Your task to perform on an android device: Play the last video I watched on Youtube Image 0: 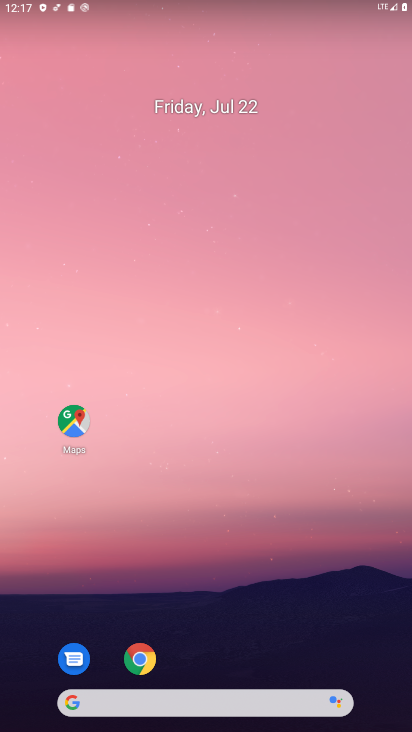
Step 0: drag from (232, 652) to (220, 217)
Your task to perform on an android device: Play the last video I watched on Youtube Image 1: 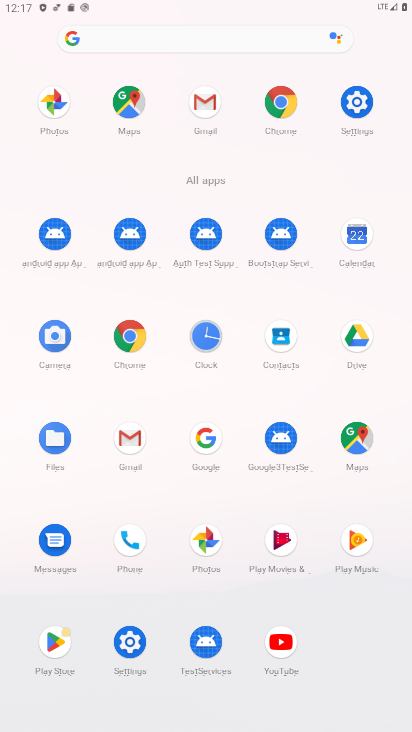
Step 1: click (263, 645)
Your task to perform on an android device: Play the last video I watched on Youtube Image 2: 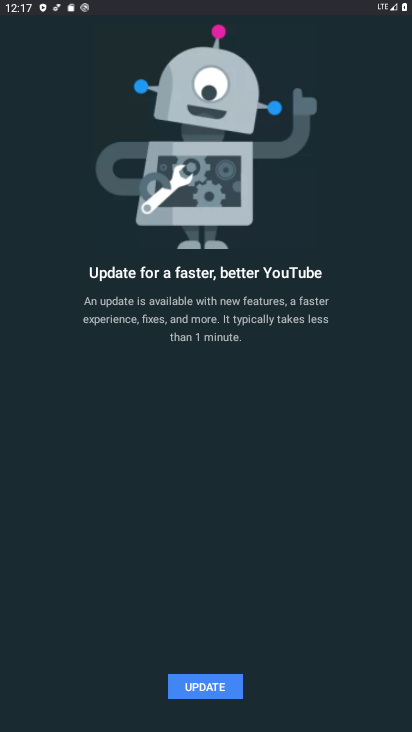
Step 2: click (200, 671)
Your task to perform on an android device: Play the last video I watched on Youtube Image 3: 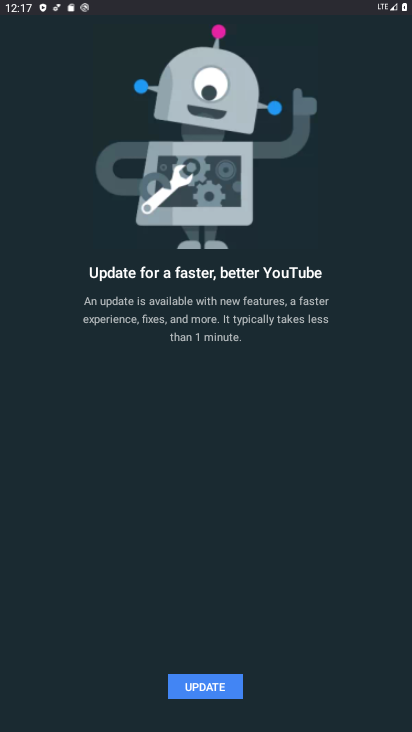
Step 3: click (204, 688)
Your task to perform on an android device: Play the last video I watched on Youtube Image 4: 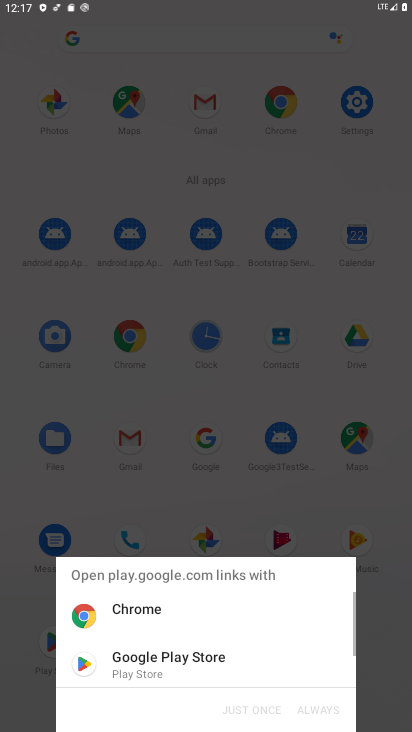
Step 4: click (186, 669)
Your task to perform on an android device: Play the last video I watched on Youtube Image 5: 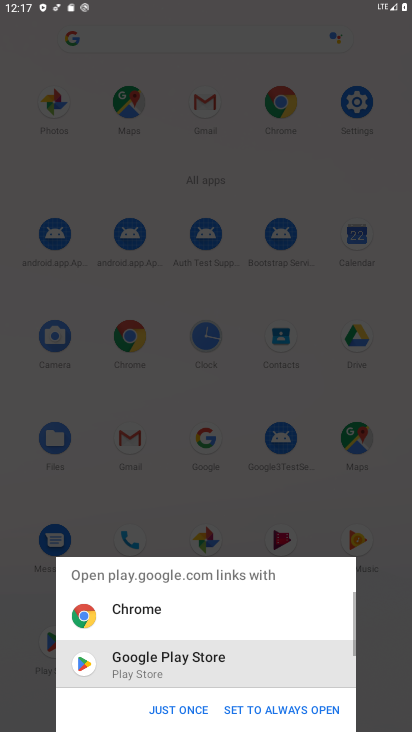
Step 5: click (200, 711)
Your task to perform on an android device: Play the last video I watched on Youtube Image 6: 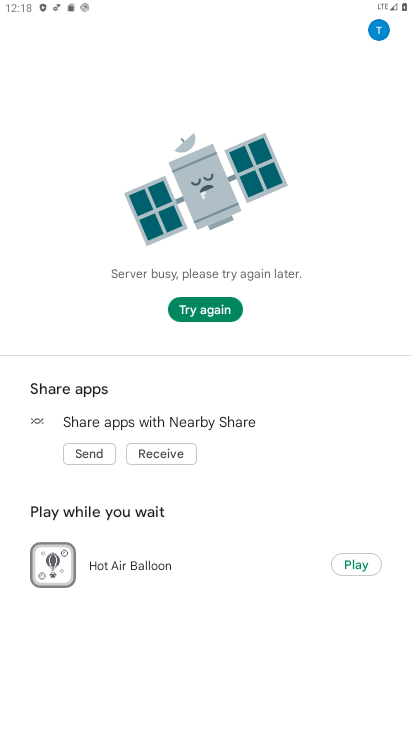
Step 6: task complete